Your task to perform on an android device: delete browsing data in the chrome app Image 0: 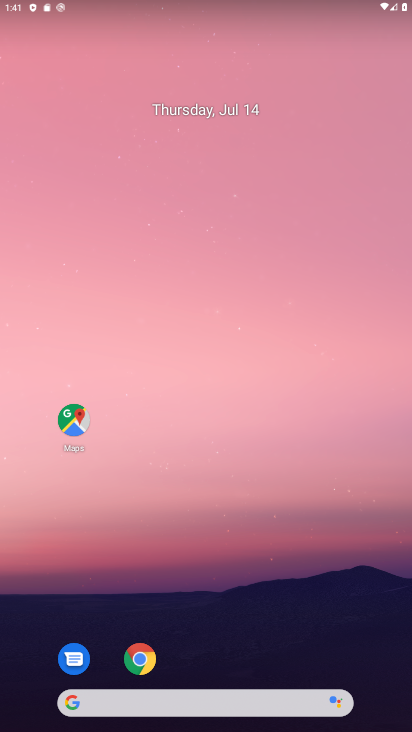
Step 0: click (130, 664)
Your task to perform on an android device: delete browsing data in the chrome app Image 1: 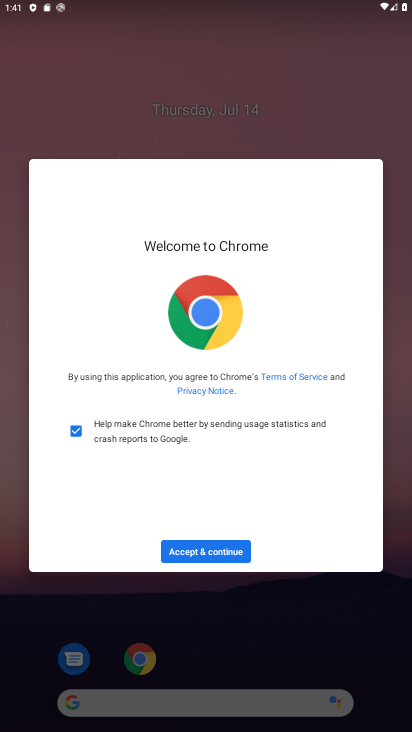
Step 1: click (232, 563)
Your task to perform on an android device: delete browsing data in the chrome app Image 2: 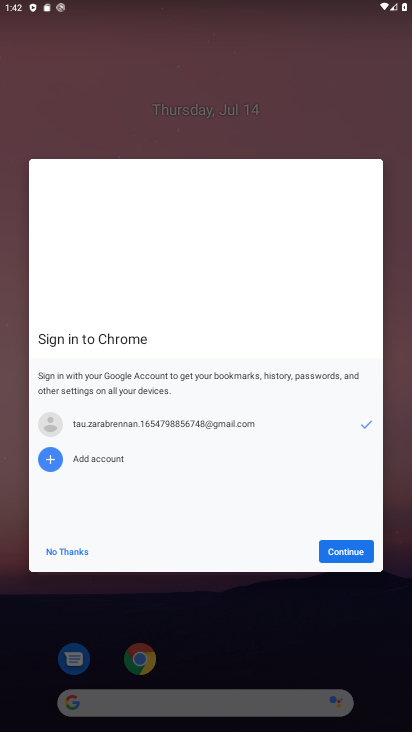
Step 2: click (361, 553)
Your task to perform on an android device: delete browsing data in the chrome app Image 3: 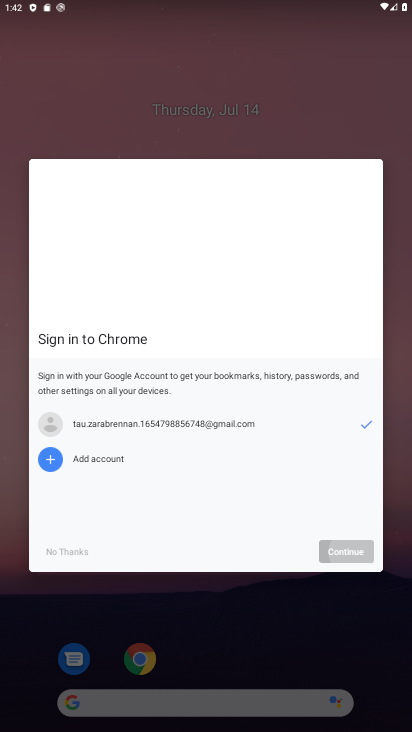
Step 3: click (361, 553)
Your task to perform on an android device: delete browsing data in the chrome app Image 4: 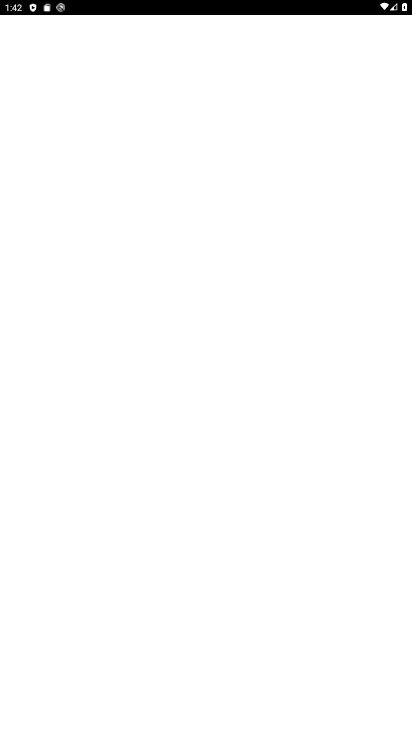
Step 4: click (361, 553)
Your task to perform on an android device: delete browsing data in the chrome app Image 5: 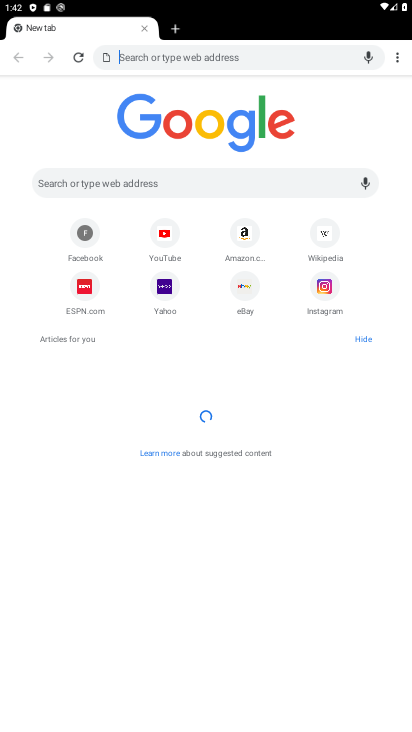
Step 5: drag from (406, 51) to (333, 257)
Your task to perform on an android device: delete browsing data in the chrome app Image 6: 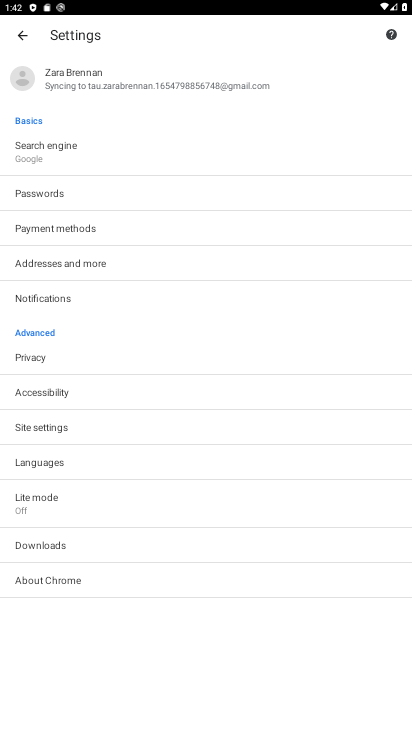
Step 6: click (82, 354)
Your task to perform on an android device: delete browsing data in the chrome app Image 7: 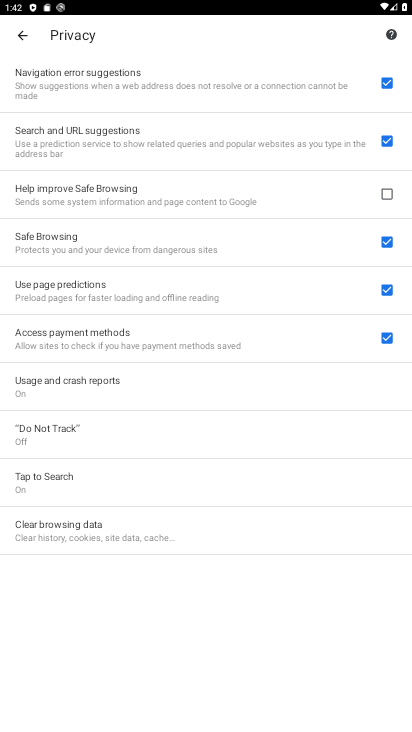
Step 7: click (151, 545)
Your task to perform on an android device: delete browsing data in the chrome app Image 8: 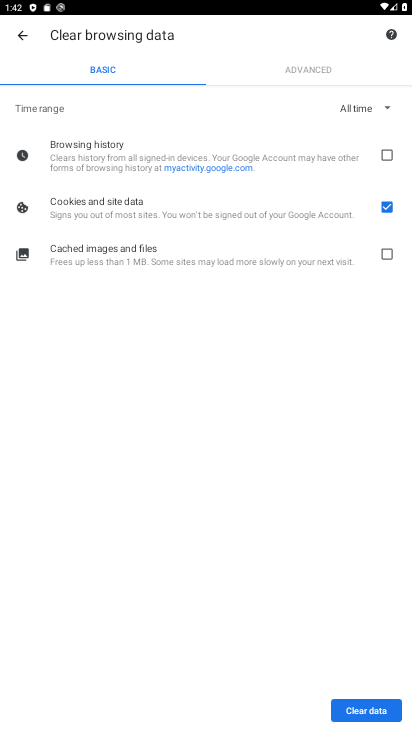
Step 8: click (355, 709)
Your task to perform on an android device: delete browsing data in the chrome app Image 9: 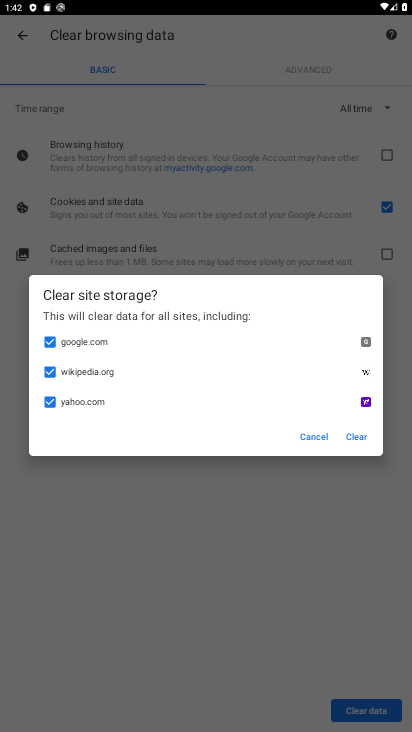
Step 9: click (360, 437)
Your task to perform on an android device: delete browsing data in the chrome app Image 10: 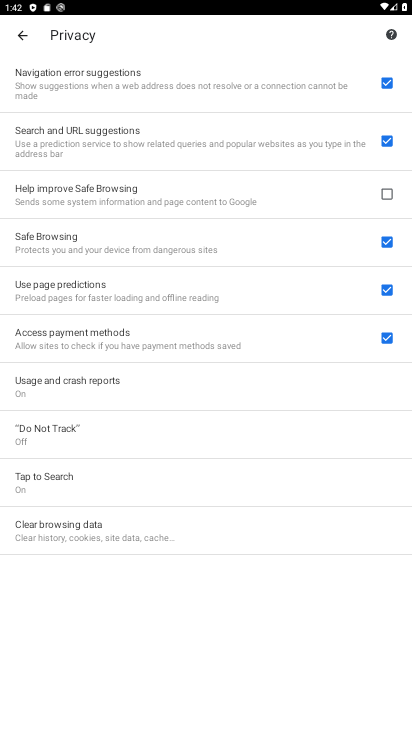
Step 10: task complete